Your task to perform on an android device: star an email in the gmail app Image 0: 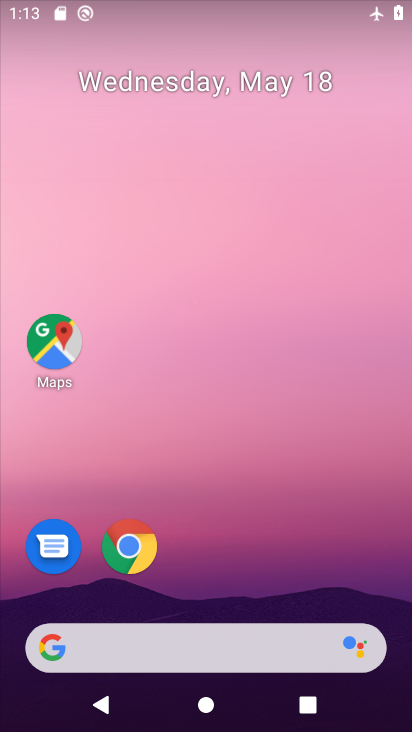
Step 0: drag from (175, 578) to (173, 208)
Your task to perform on an android device: star an email in the gmail app Image 1: 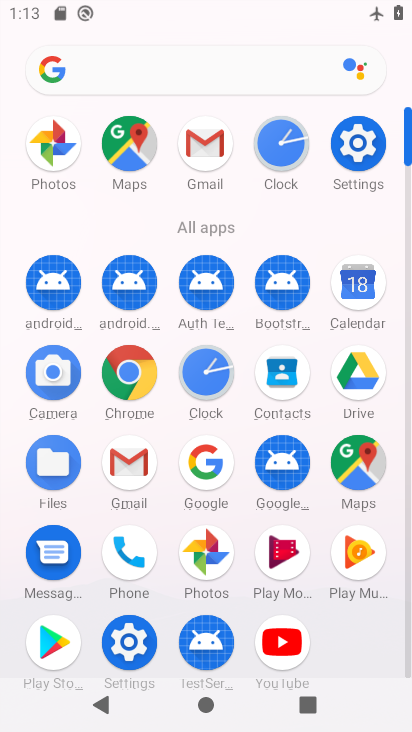
Step 1: click (128, 458)
Your task to perform on an android device: star an email in the gmail app Image 2: 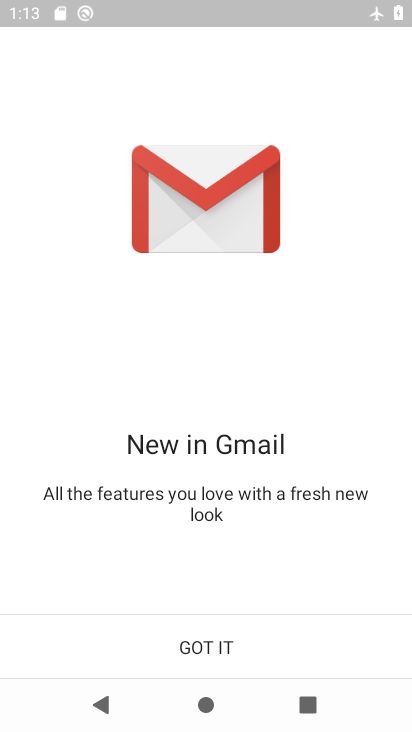
Step 2: click (188, 639)
Your task to perform on an android device: star an email in the gmail app Image 3: 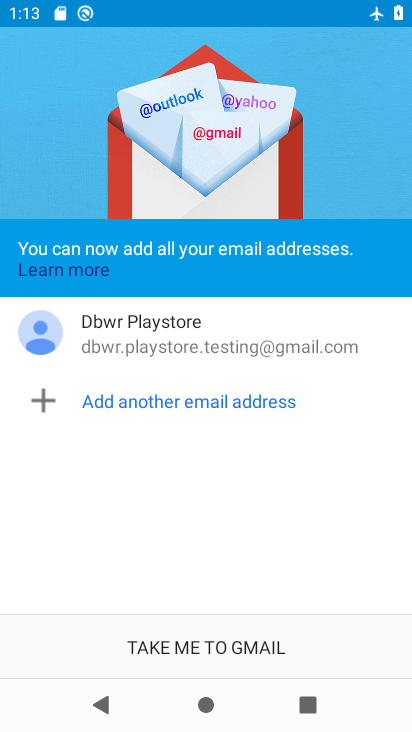
Step 3: click (194, 654)
Your task to perform on an android device: star an email in the gmail app Image 4: 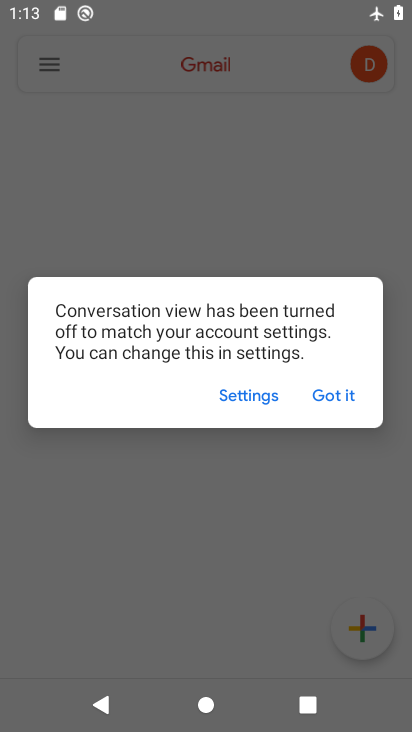
Step 4: click (330, 411)
Your task to perform on an android device: star an email in the gmail app Image 5: 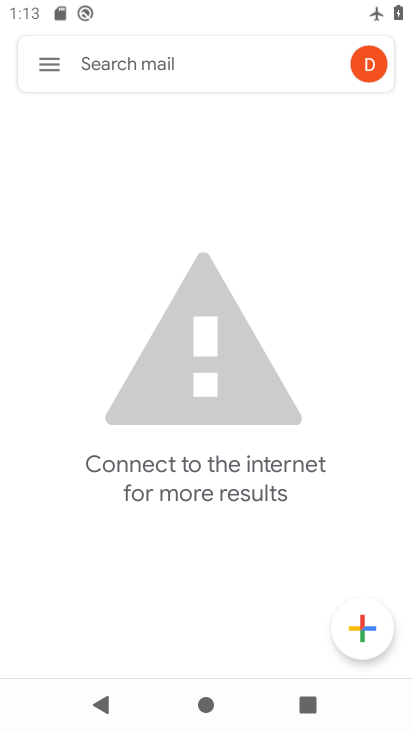
Step 5: click (48, 62)
Your task to perform on an android device: star an email in the gmail app Image 6: 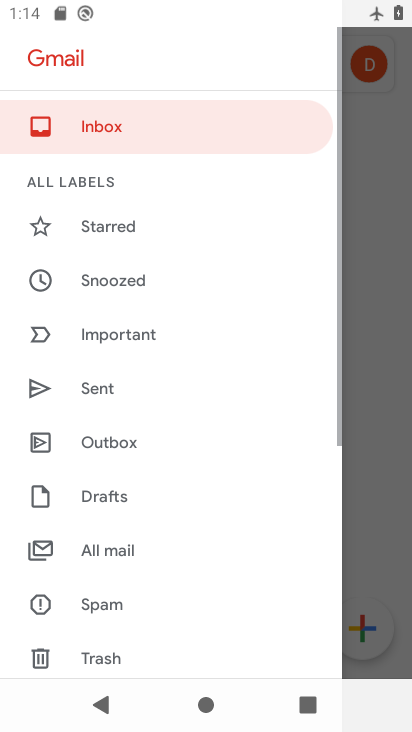
Step 6: click (74, 552)
Your task to perform on an android device: star an email in the gmail app Image 7: 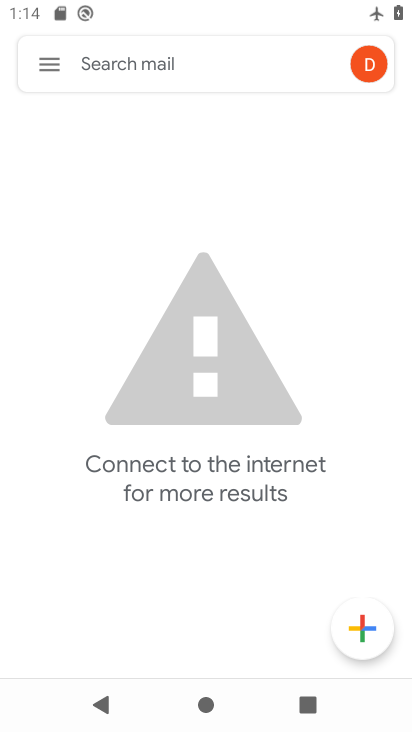
Step 7: task complete